Your task to perform on an android device: View the shopping cart on walmart.com. Add "acer predator" to the cart on walmart.com Image 0: 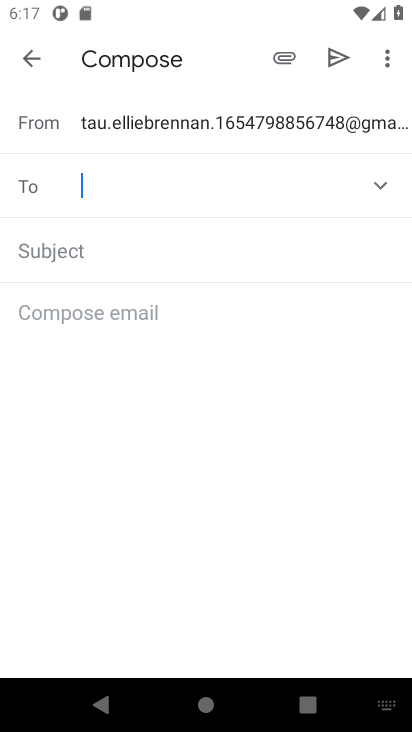
Step 0: press home button
Your task to perform on an android device: View the shopping cart on walmart.com. Add "acer predator" to the cart on walmart.com Image 1: 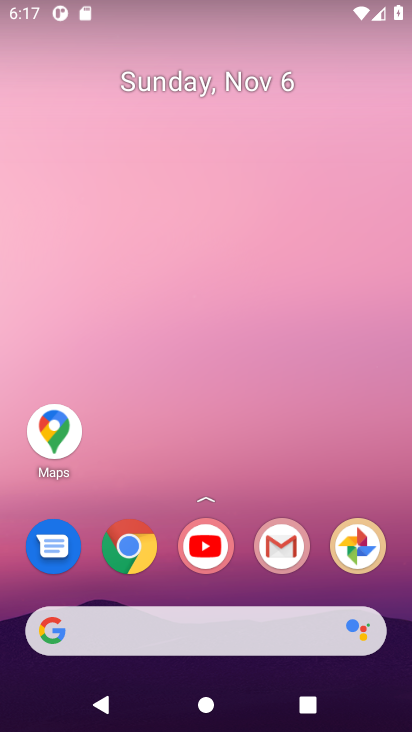
Step 1: click (125, 555)
Your task to perform on an android device: View the shopping cart on walmart.com. Add "acer predator" to the cart on walmart.com Image 2: 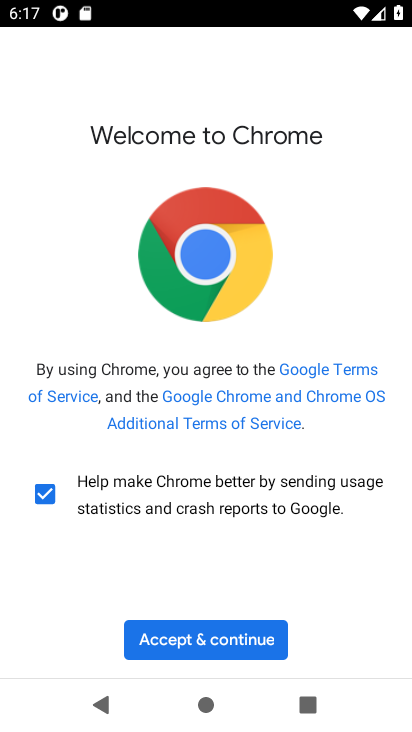
Step 2: click (191, 631)
Your task to perform on an android device: View the shopping cart on walmart.com. Add "acer predator" to the cart on walmart.com Image 3: 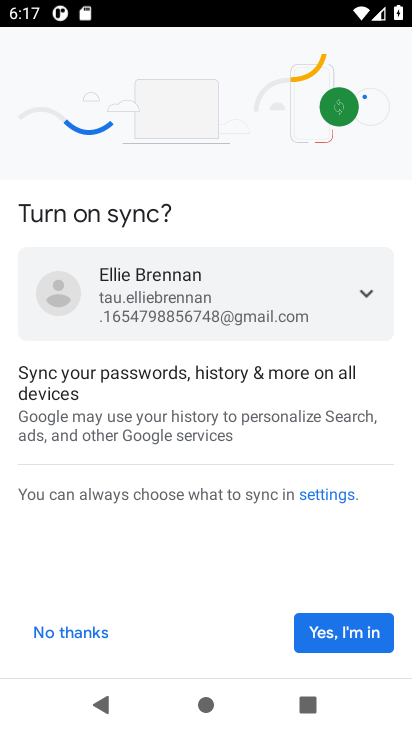
Step 3: click (329, 635)
Your task to perform on an android device: View the shopping cart on walmart.com. Add "acer predator" to the cart on walmart.com Image 4: 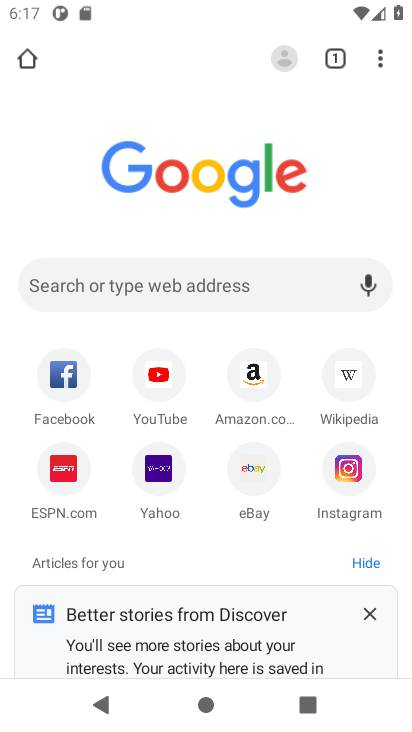
Step 4: click (85, 282)
Your task to perform on an android device: View the shopping cart on walmart.com. Add "acer predator" to the cart on walmart.com Image 5: 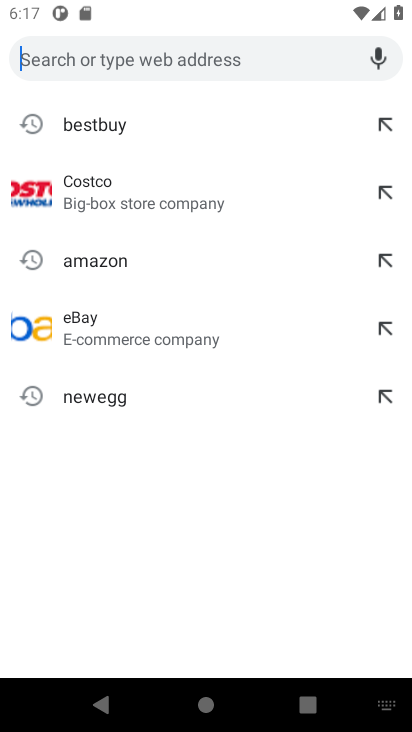
Step 5: type "walmart.com"
Your task to perform on an android device: View the shopping cart on walmart.com. Add "acer predator" to the cart on walmart.com Image 6: 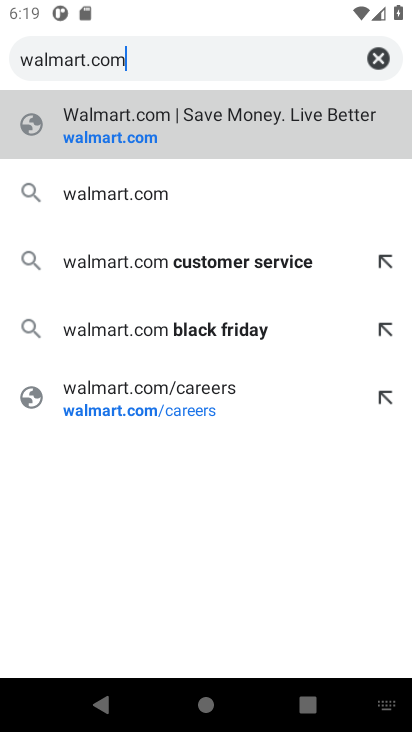
Step 6: click (103, 133)
Your task to perform on an android device: View the shopping cart on walmart.com. Add "acer predator" to the cart on walmart.com Image 7: 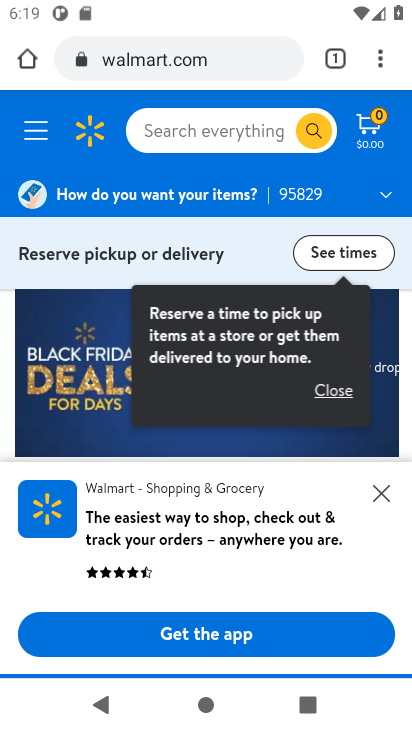
Step 7: click (169, 136)
Your task to perform on an android device: View the shopping cart on walmart.com. Add "acer predator" to the cart on walmart.com Image 8: 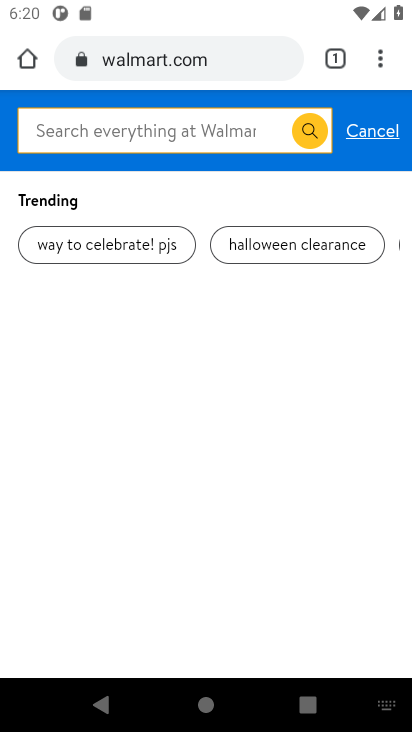
Step 8: click (390, 134)
Your task to perform on an android device: View the shopping cart on walmart.com. Add "acer predator" to the cart on walmart.com Image 9: 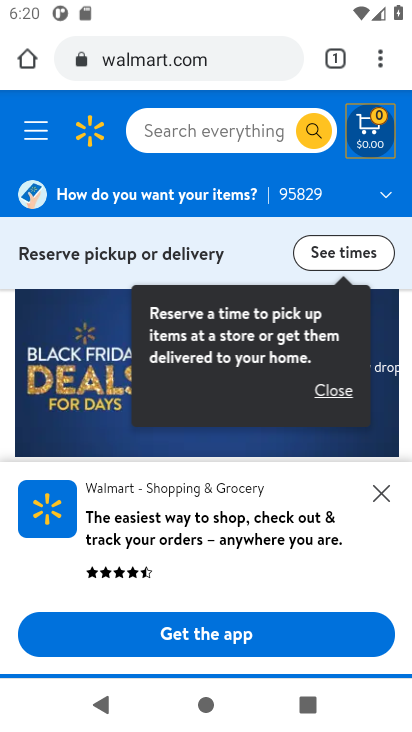
Step 9: click (367, 130)
Your task to perform on an android device: View the shopping cart on walmart.com. Add "acer predator" to the cart on walmart.com Image 10: 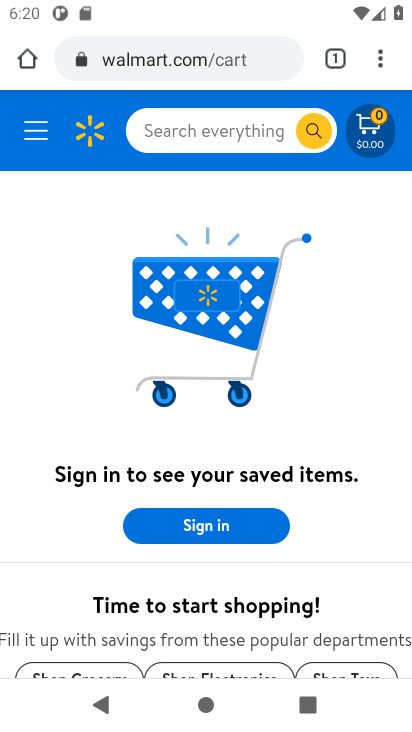
Step 10: click (223, 135)
Your task to perform on an android device: View the shopping cart on walmart.com. Add "acer predator" to the cart on walmart.com Image 11: 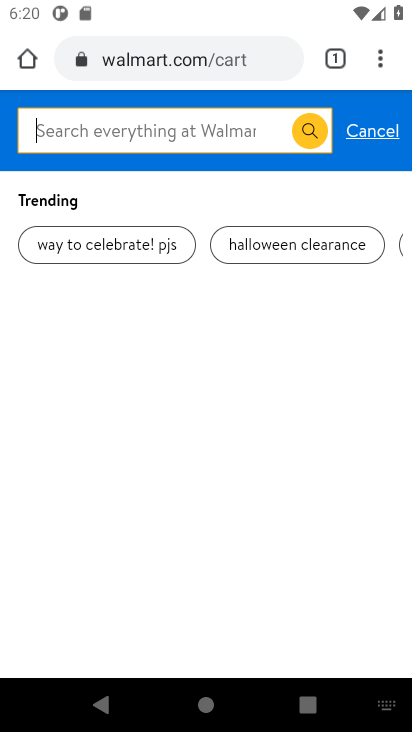
Step 11: type "acer predator"
Your task to perform on an android device: View the shopping cart on walmart.com. Add "acer predator" to the cart on walmart.com Image 12: 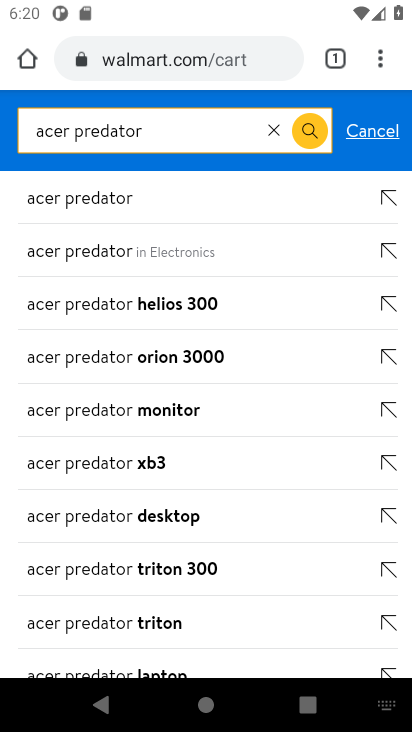
Step 12: click (71, 199)
Your task to perform on an android device: View the shopping cart on walmart.com. Add "acer predator" to the cart on walmart.com Image 13: 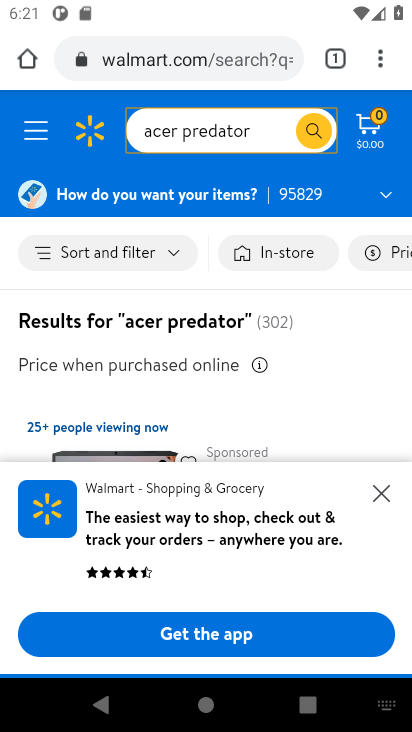
Step 13: drag from (234, 391) to (235, 180)
Your task to perform on an android device: View the shopping cart on walmart.com. Add "acer predator" to the cart on walmart.com Image 14: 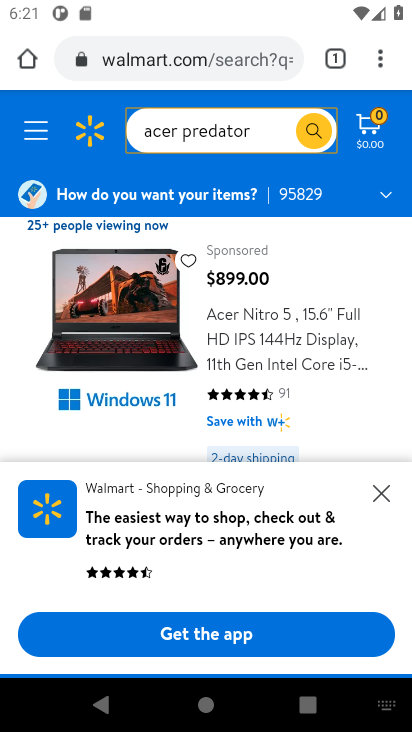
Step 14: drag from (234, 356) to (231, 200)
Your task to perform on an android device: View the shopping cart on walmart.com. Add "acer predator" to the cart on walmart.com Image 15: 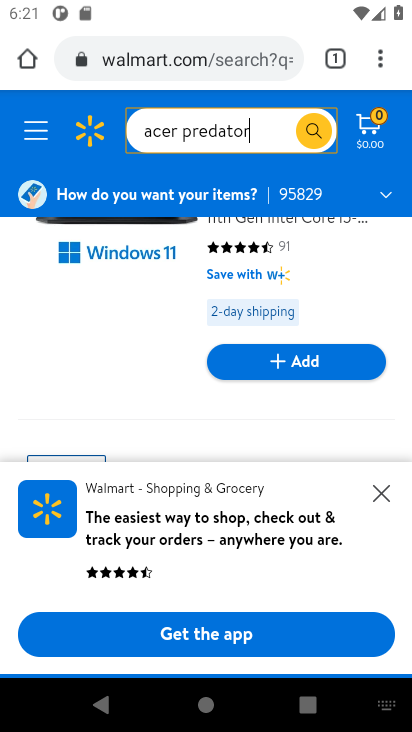
Step 15: drag from (198, 422) to (193, 185)
Your task to perform on an android device: View the shopping cart on walmart.com. Add "acer predator" to the cart on walmart.com Image 16: 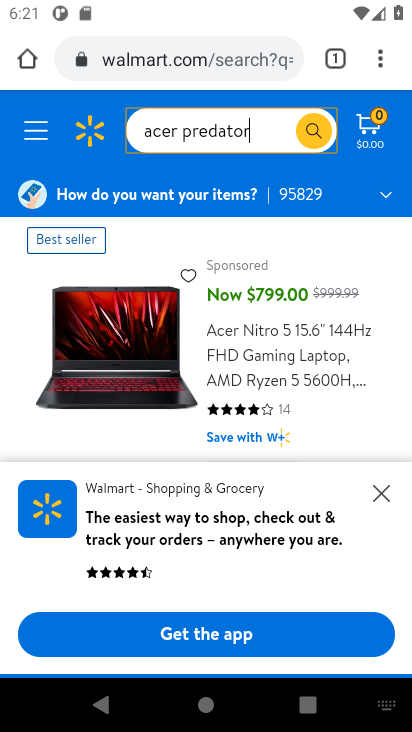
Step 16: click (384, 490)
Your task to perform on an android device: View the shopping cart on walmart.com. Add "acer predator" to the cart on walmart.com Image 17: 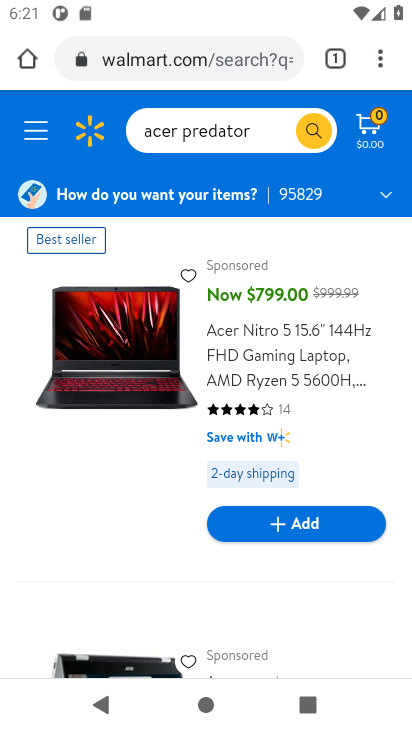
Step 17: drag from (180, 433) to (168, 190)
Your task to perform on an android device: View the shopping cart on walmart.com. Add "acer predator" to the cart on walmart.com Image 18: 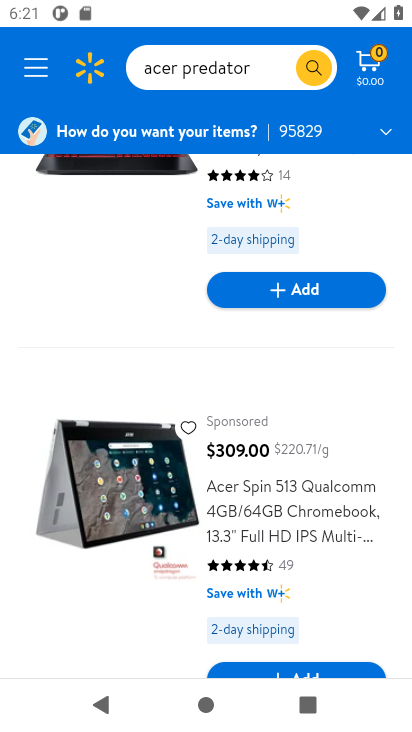
Step 18: drag from (161, 561) to (152, 231)
Your task to perform on an android device: View the shopping cart on walmart.com. Add "acer predator" to the cart on walmart.com Image 19: 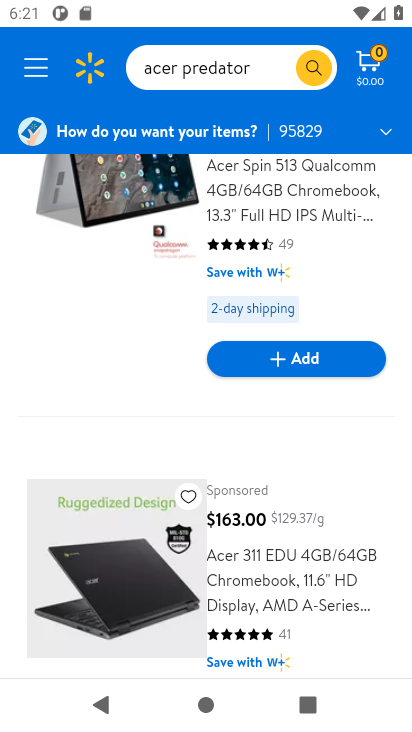
Step 19: drag from (162, 530) to (157, 221)
Your task to perform on an android device: View the shopping cart on walmart.com. Add "acer predator" to the cart on walmart.com Image 20: 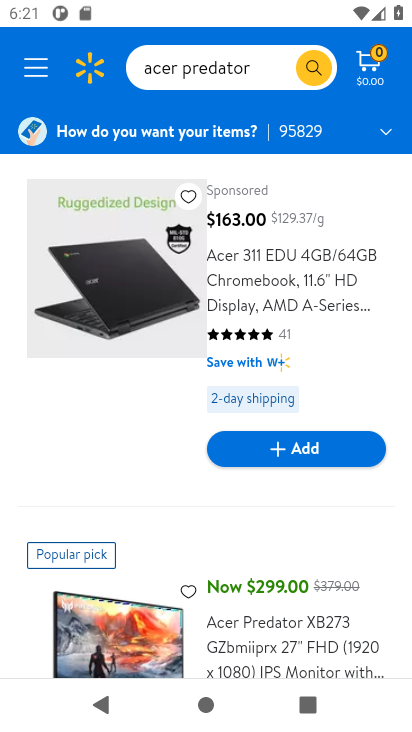
Step 20: drag from (125, 530) to (144, 325)
Your task to perform on an android device: View the shopping cart on walmart.com. Add "acer predator" to the cart on walmart.com Image 21: 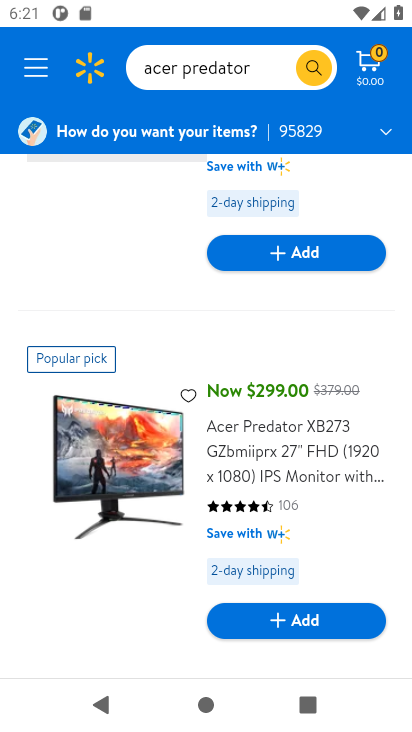
Step 21: click (288, 631)
Your task to perform on an android device: View the shopping cart on walmart.com. Add "acer predator" to the cart on walmart.com Image 22: 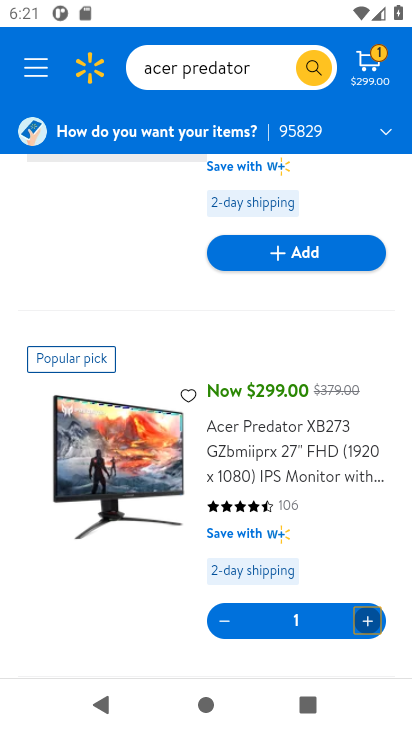
Step 22: task complete